Your task to perform on an android device: Open Maps and search for coffee Image 0: 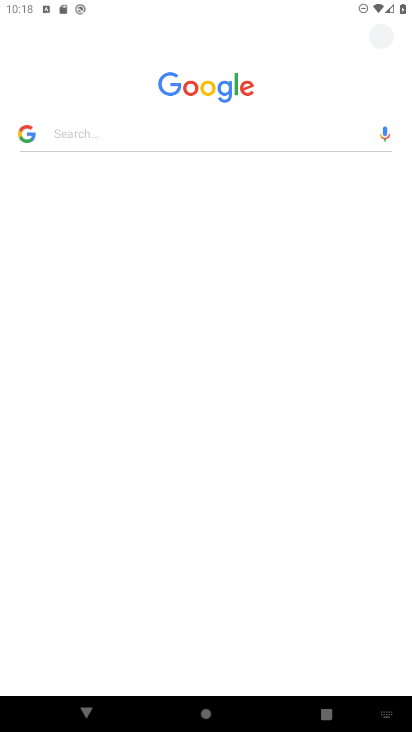
Step 0: drag from (293, 7) to (248, 671)
Your task to perform on an android device: Open Maps and search for coffee Image 1: 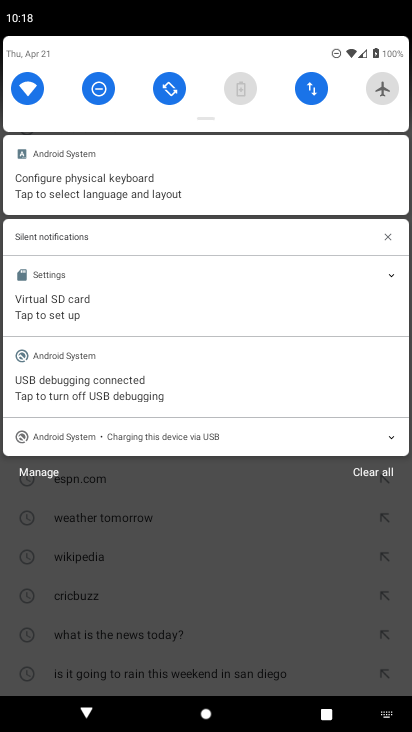
Step 1: press home button
Your task to perform on an android device: Open Maps and search for coffee Image 2: 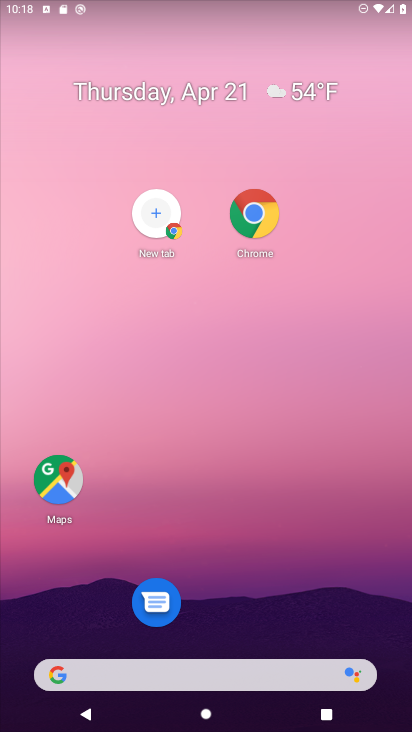
Step 2: click (61, 484)
Your task to perform on an android device: Open Maps and search for coffee Image 3: 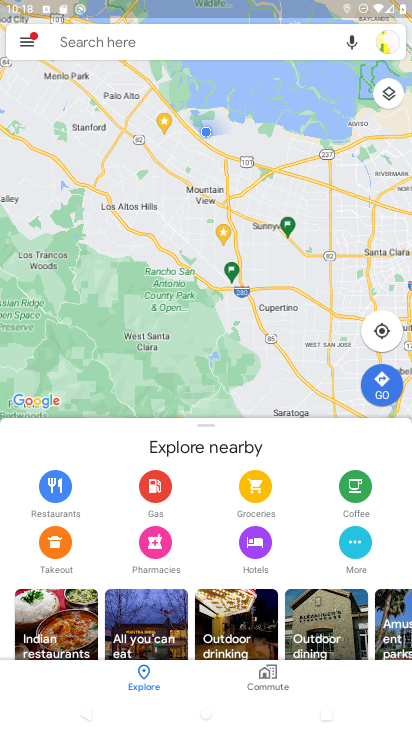
Step 3: click (184, 46)
Your task to perform on an android device: Open Maps and search for coffee Image 4: 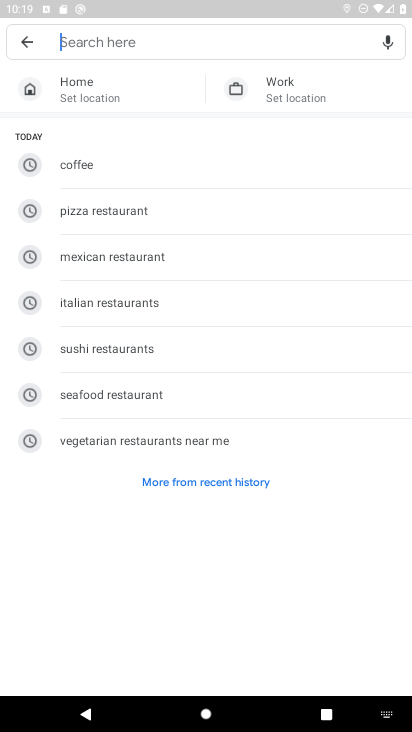
Step 4: click (54, 178)
Your task to perform on an android device: Open Maps and search for coffee Image 5: 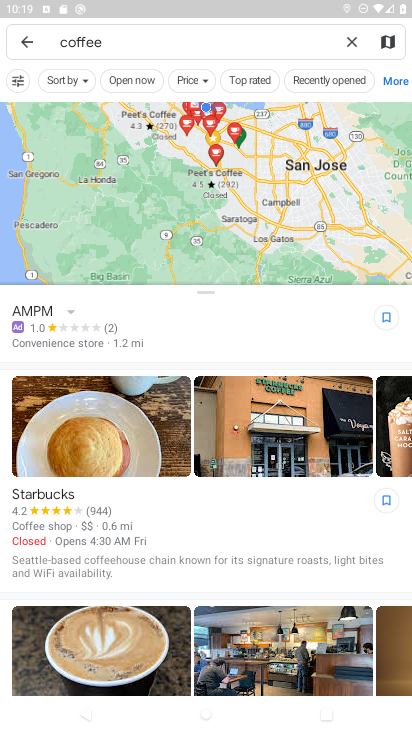
Step 5: task complete